Your task to perform on an android device: toggle wifi Image 0: 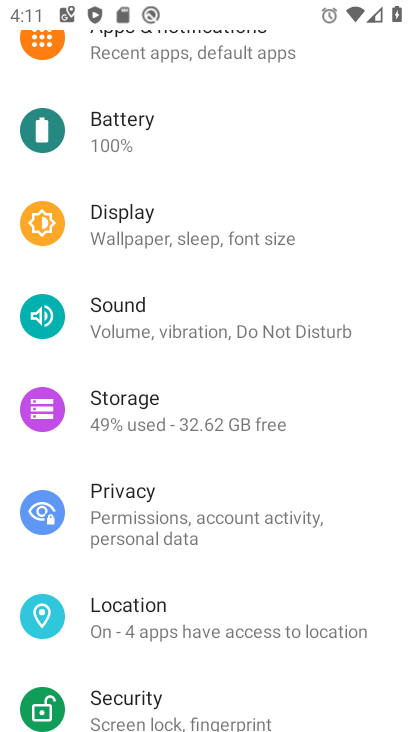
Step 0: drag from (342, 133) to (323, 559)
Your task to perform on an android device: toggle wifi Image 1: 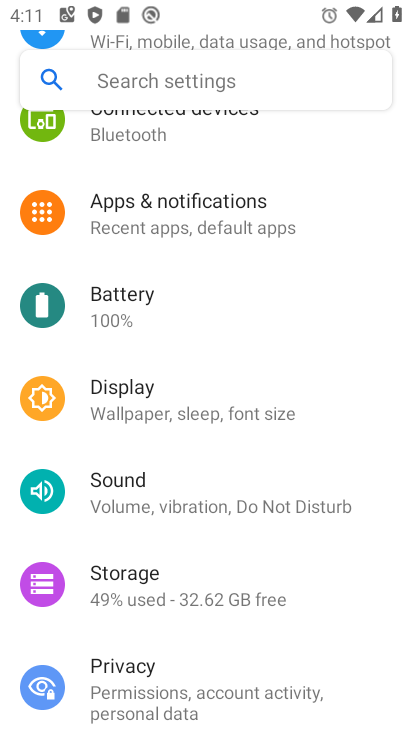
Step 1: drag from (322, 233) to (325, 460)
Your task to perform on an android device: toggle wifi Image 2: 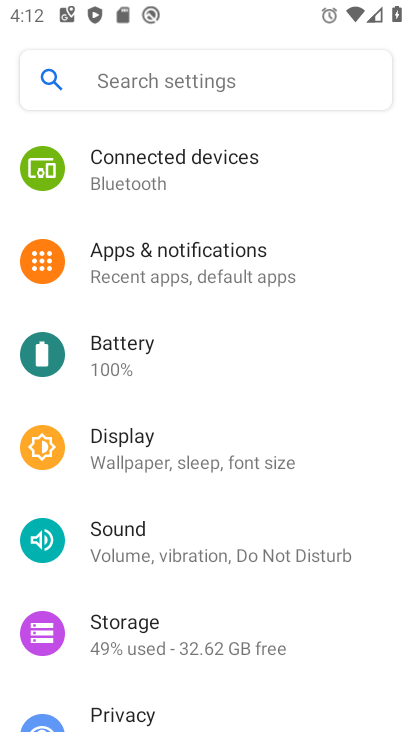
Step 2: click (296, 383)
Your task to perform on an android device: toggle wifi Image 3: 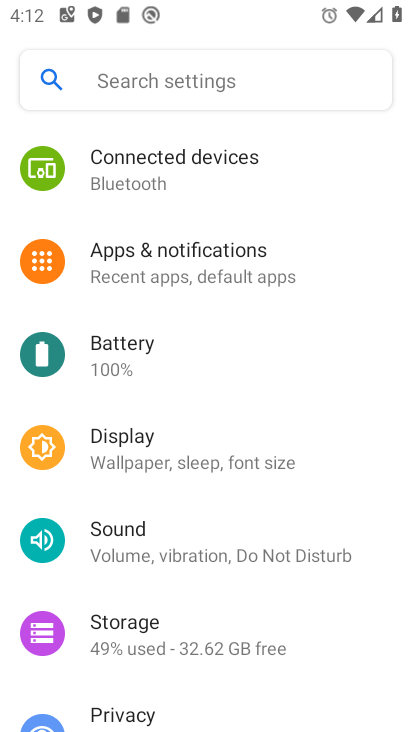
Step 3: drag from (348, 152) to (372, 635)
Your task to perform on an android device: toggle wifi Image 4: 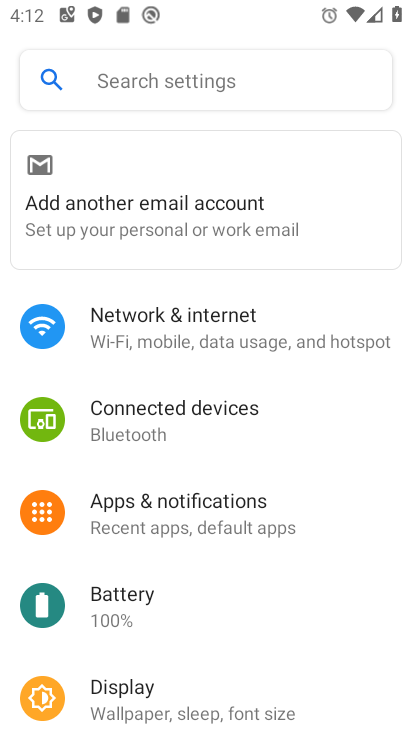
Step 4: click (150, 326)
Your task to perform on an android device: toggle wifi Image 5: 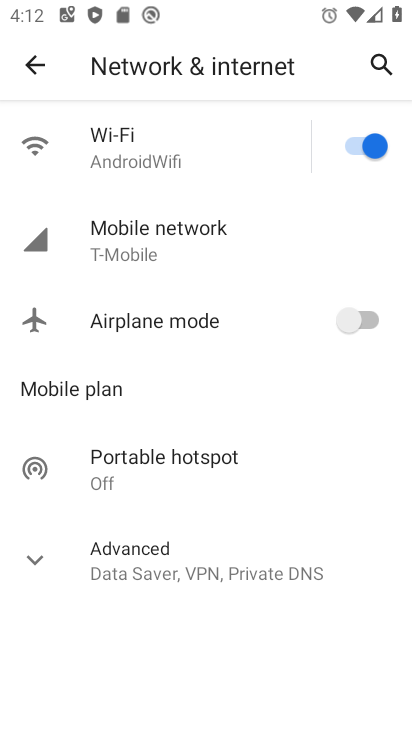
Step 5: click (349, 143)
Your task to perform on an android device: toggle wifi Image 6: 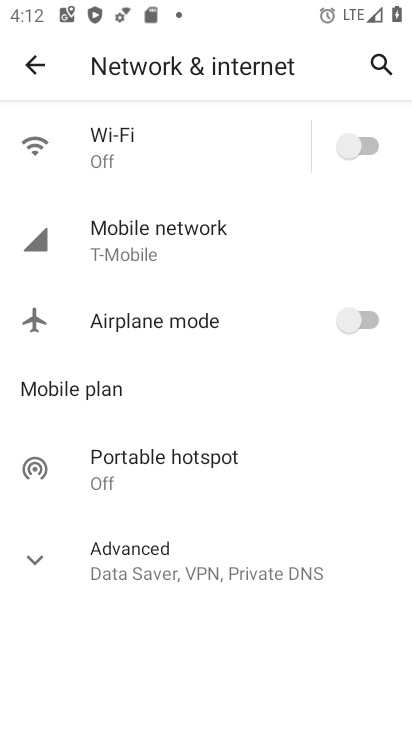
Step 6: task complete